Your task to perform on an android device: Open settings on Google Maps Image 0: 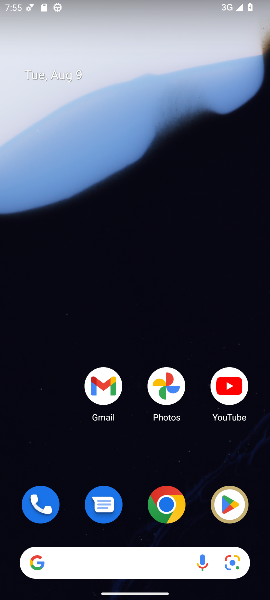
Step 0: drag from (177, 458) to (175, 29)
Your task to perform on an android device: Open settings on Google Maps Image 1: 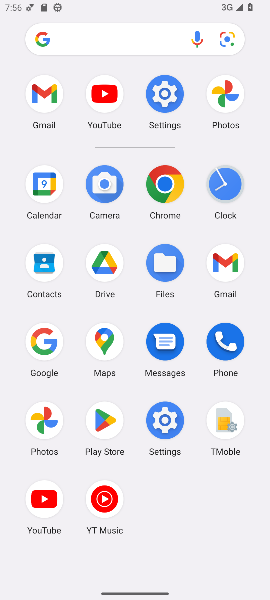
Step 1: click (91, 346)
Your task to perform on an android device: Open settings on Google Maps Image 2: 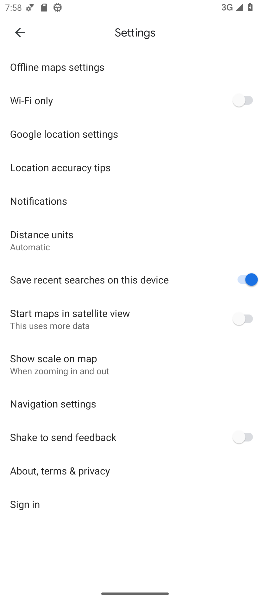
Step 2: task complete